Your task to perform on an android device: Go to privacy settings Image 0: 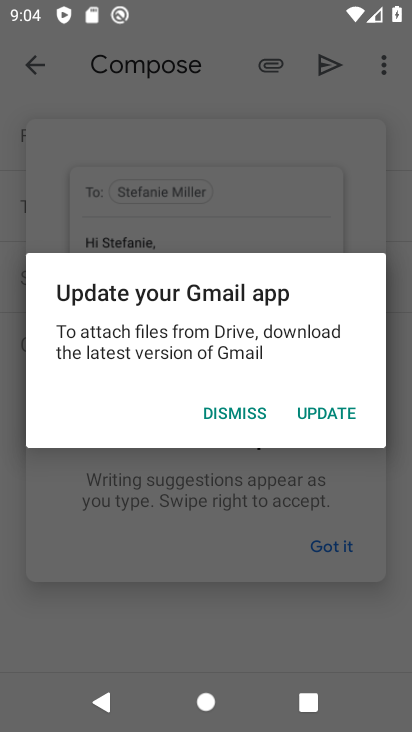
Step 0: click (302, 412)
Your task to perform on an android device: Go to privacy settings Image 1: 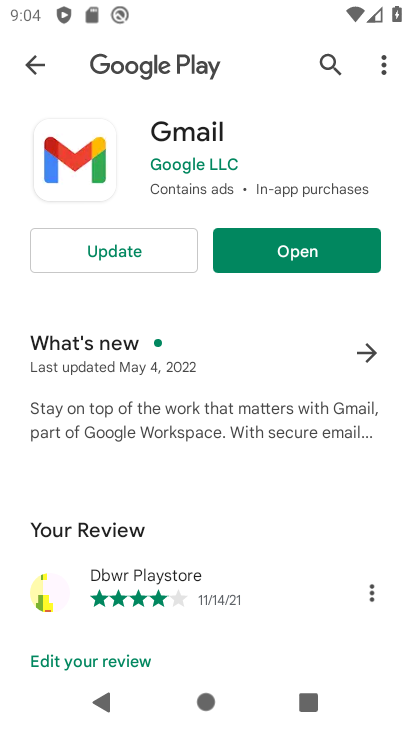
Step 1: click (100, 239)
Your task to perform on an android device: Go to privacy settings Image 2: 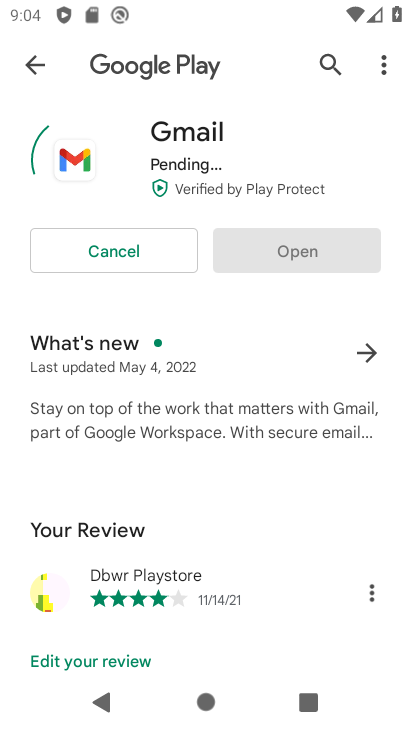
Step 2: press home button
Your task to perform on an android device: Go to privacy settings Image 3: 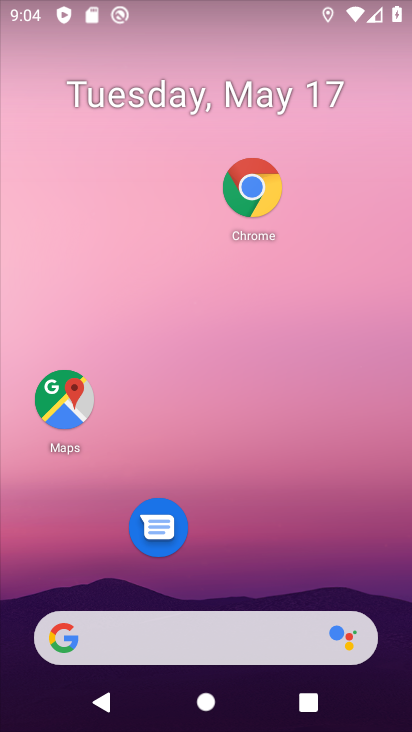
Step 3: drag from (254, 564) to (298, 124)
Your task to perform on an android device: Go to privacy settings Image 4: 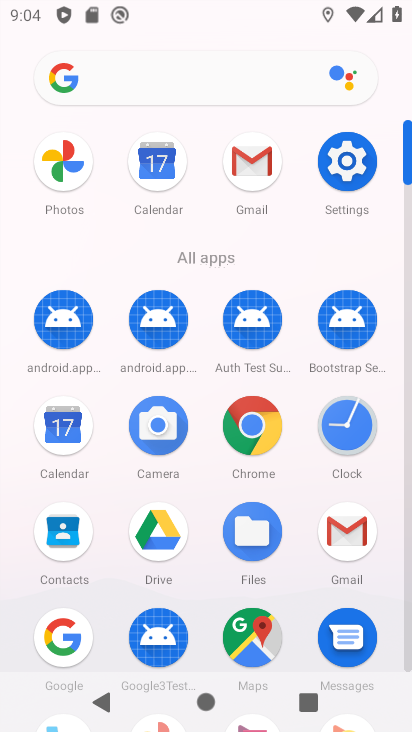
Step 4: click (341, 199)
Your task to perform on an android device: Go to privacy settings Image 5: 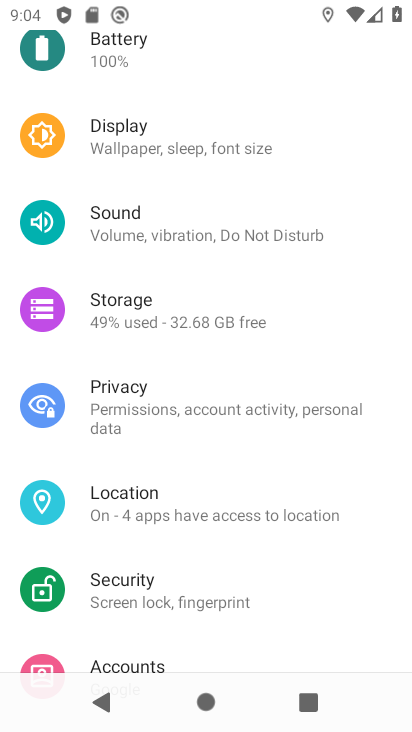
Step 5: click (241, 405)
Your task to perform on an android device: Go to privacy settings Image 6: 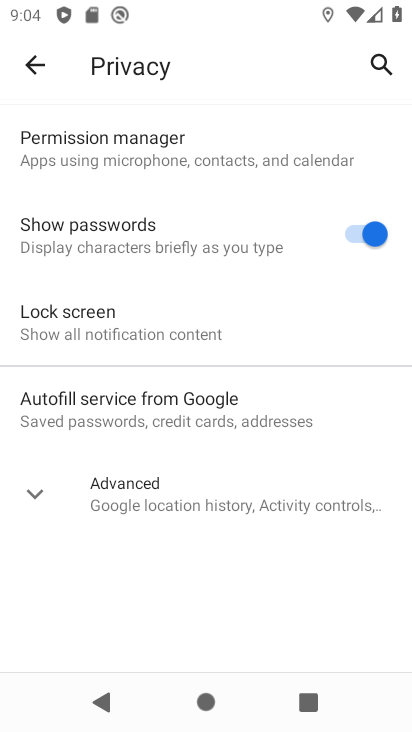
Step 6: task complete